Your task to perform on an android device: toggle notifications settings in the gmail app Image 0: 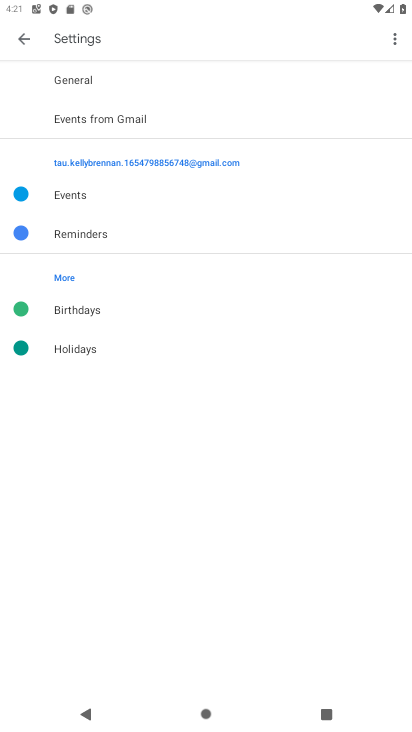
Step 0: click (334, 9)
Your task to perform on an android device: toggle notifications settings in the gmail app Image 1: 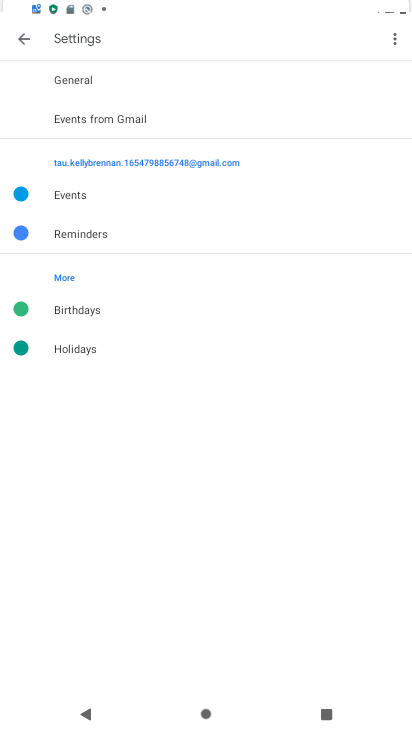
Step 1: drag from (334, 9) to (247, 491)
Your task to perform on an android device: toggle notifications settings in the gmail app Image 2: 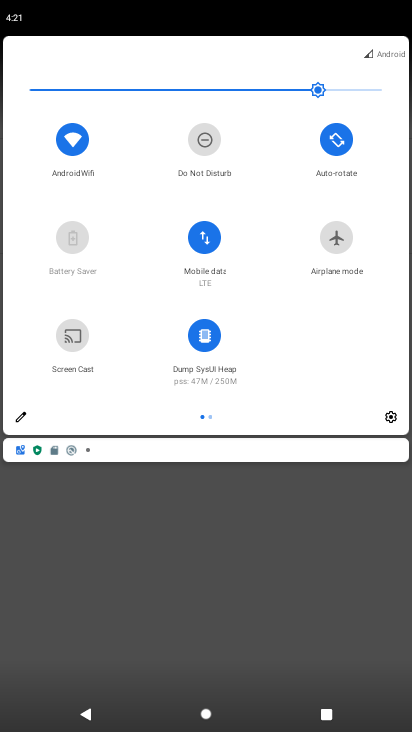
Step 2: click (65, 146)
Your task to perform on an android device: toggle notifications settings in the gmail app Image 3: 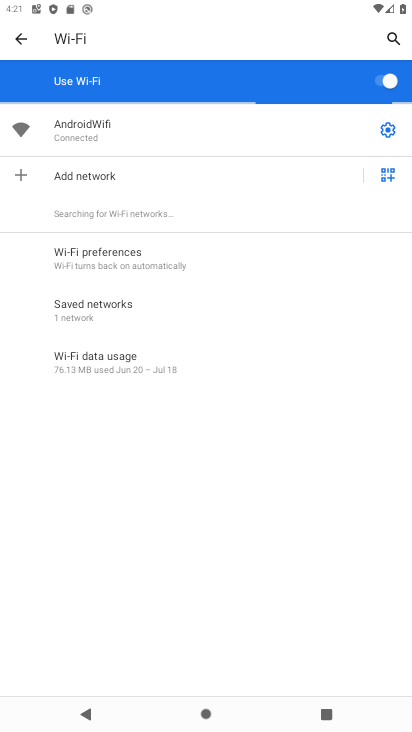
Step 3: task complete